Your task to perform on an android device: add a contact in the contacts app Image 0: 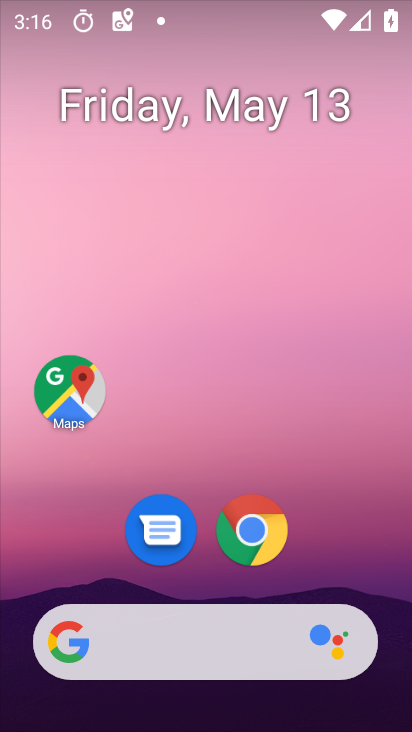
Step 0: drag from (340, 488) to (318, 90)
Your task to perform on an android device: add a contact in the contacts app Image 1: 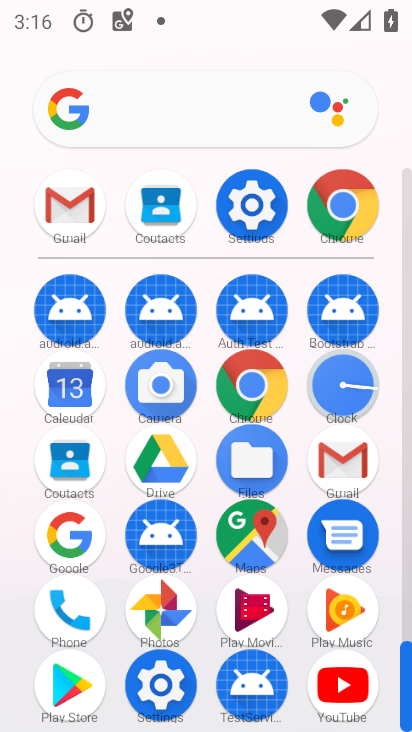
Step 1: click (58, 457)
Your task to perform on an android device: add a contact in the contacts app Image 2: 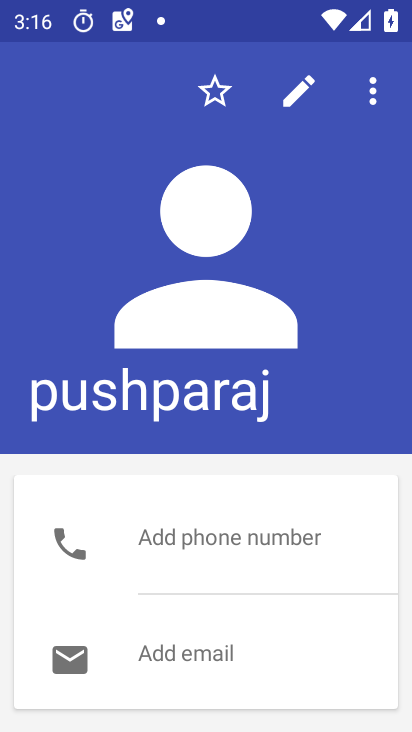
Step 2: press back button
Your task to perform on an android device: add a contact in the contacts app Image 3: 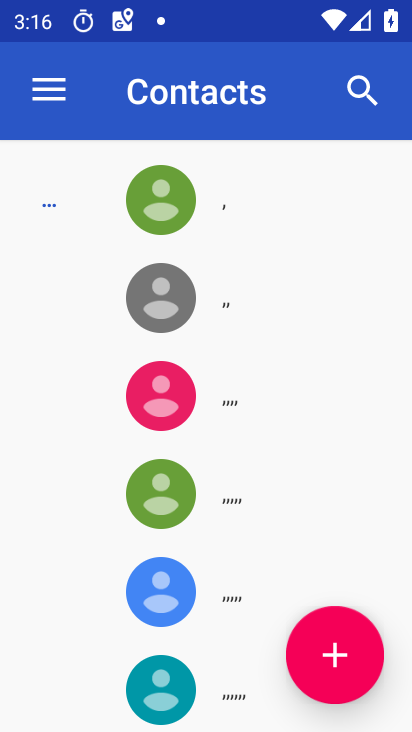
Step 3: click (330, 671)
Your task to perform on an android device: add a contact in the contacts app Image 4: 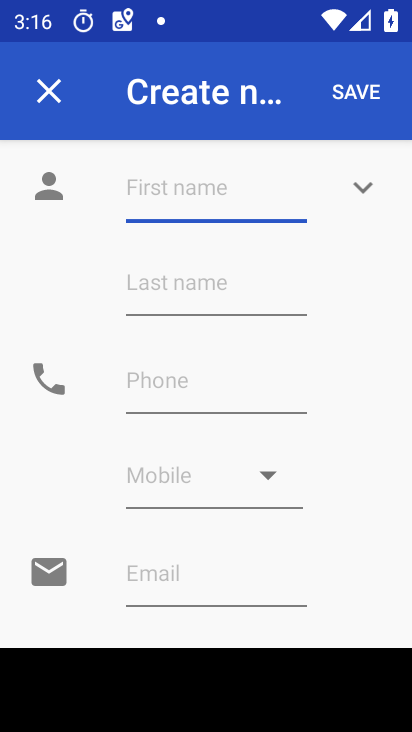
Step 4: click (224, 186)
Your task to perform on an android device: add a contact in the contacts app Image 5: 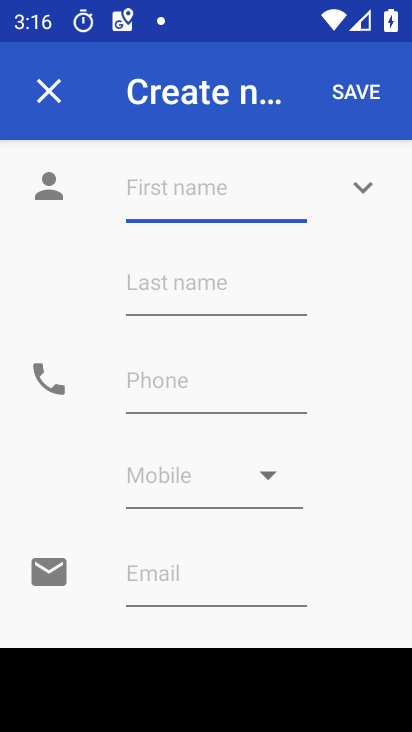
Step 5: type "abhi"
Your task to perform on an android device: add a contact in the contacts app Image 6: 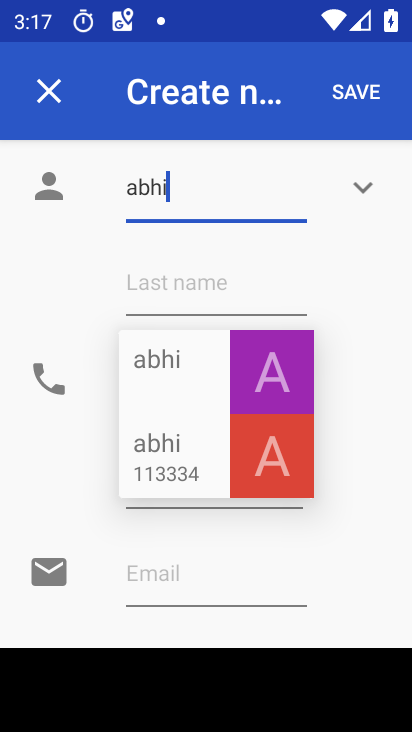
Step 6: type "ham"
Your task to perform on an android device: add a contact in the contacts app Image 7: 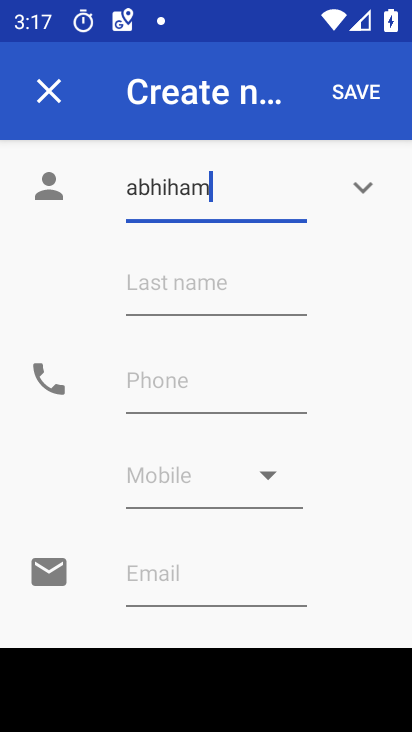
Step 7: click (355, 100)
Your task to perform on an android device: add a contact in the contacts app Image 8: 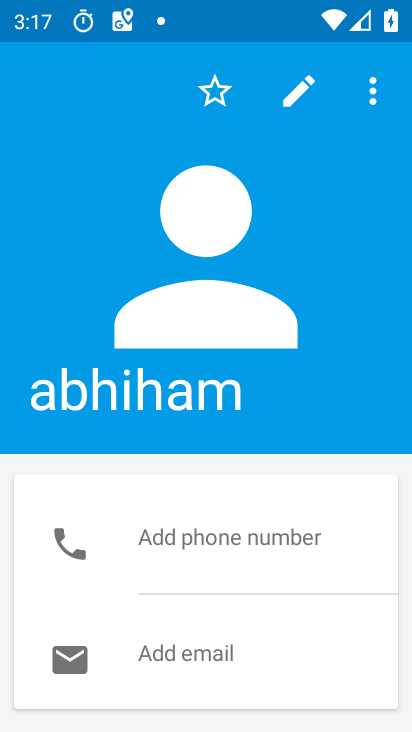
Step 8: task complete